Your task to perform on an android device: Go to Amazon Image 0: 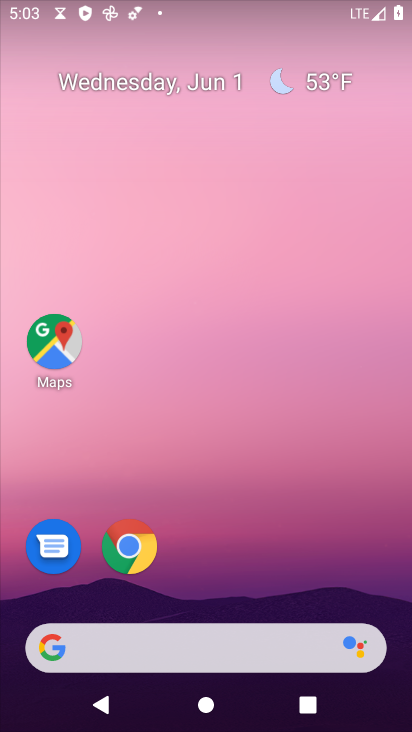
Step 0: drag from (296, 566) to (239, 30)
Your task to perform on an android device: Go to Amazon Image 1: 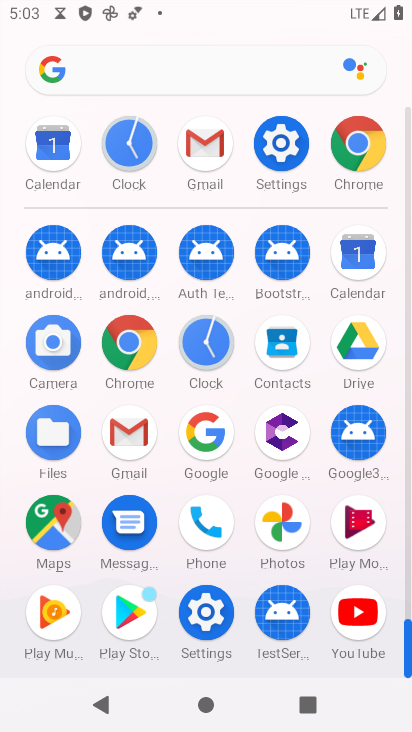
Step 1: drag from (8, 582) to (13, 269)
Your task to perform on an android device: Go to Amazon Image 2: 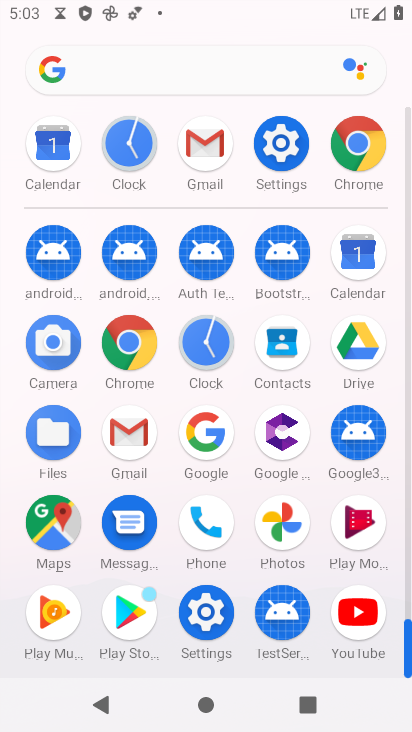
Step 2: click (124, 335)
Your task to perform on an android device: Go to Amazon Image 3: 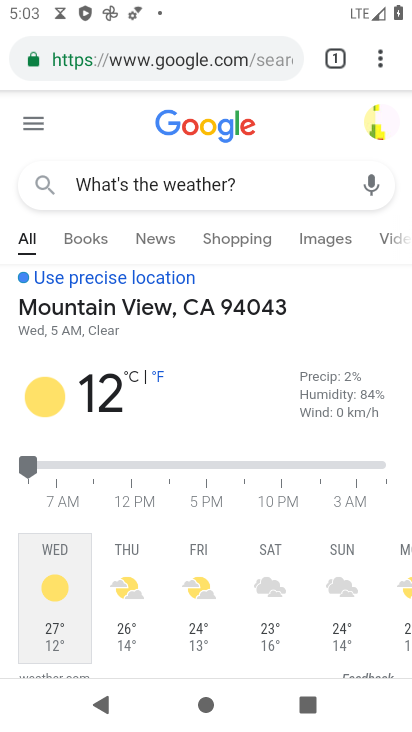
Step 3: click (192, 55)
Your task to perform on an android device: Go to Amazon Image 4: 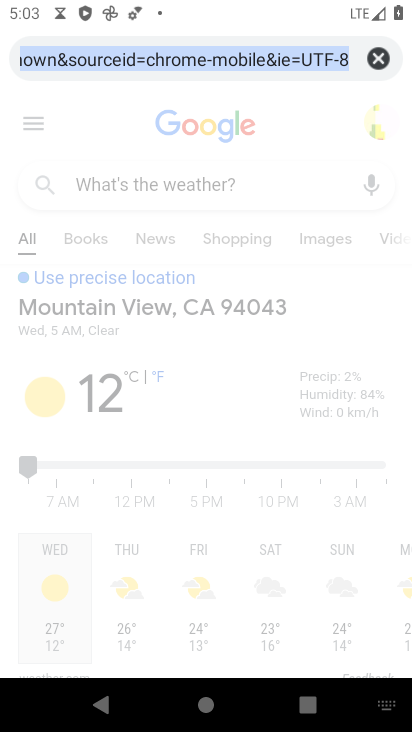
Step 4: click (376, 58)
Your task to perform on an android device: Go to Amazon Image 5: 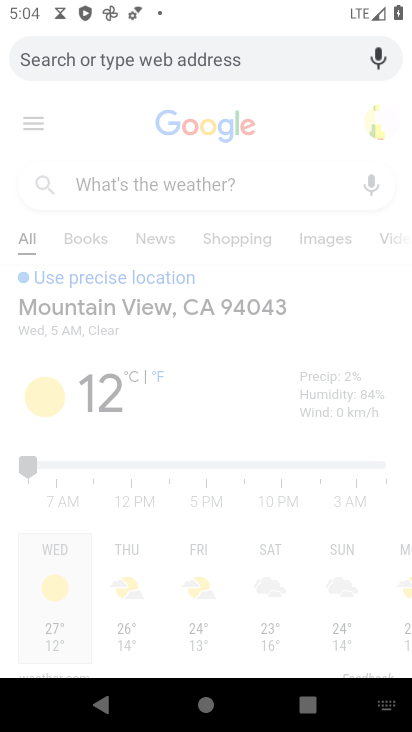
Step 5: type " Amazon"
Your task to perform on an android device: Go to Amazon Image 6: 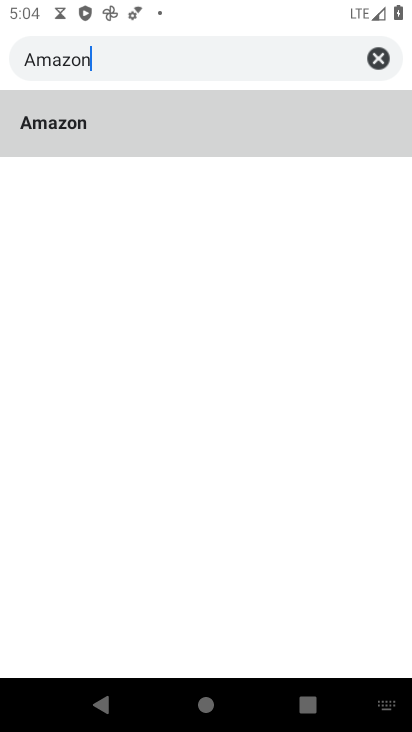
Step 6: type ""
Your task to perform on an android device: Go to Amazon Image 7: 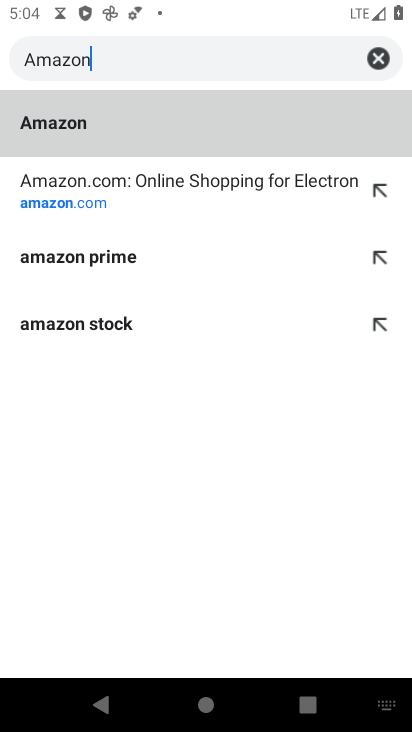
Step 7: click (166, 186)
Your task to perform on an android device: Go to Amazon Image 8: 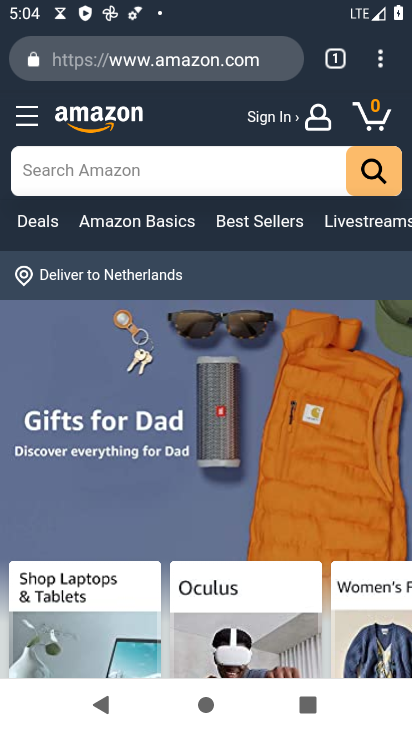
Step 8: task complete